Your task to perform on an android device: Toggle the flashlight Image 0: 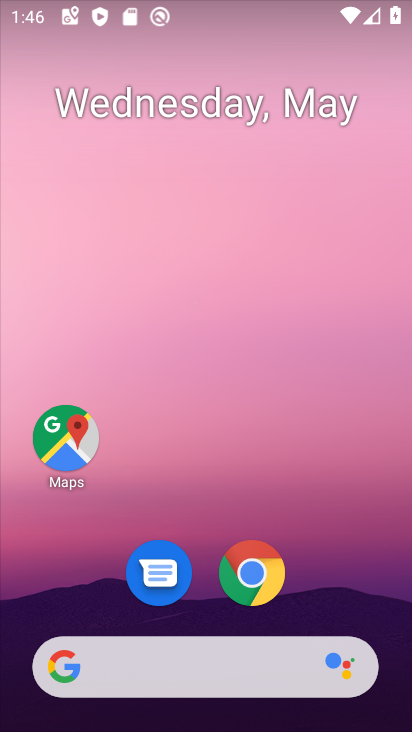
Step 0: drag from (333, 597) to (338, 104)
Your task to perform on an android device: Toggle the flashlight Image 1: 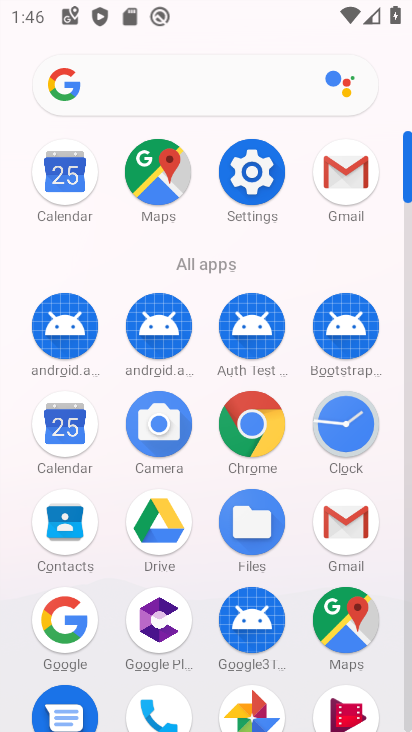
Step 1: click (256, 174)
Your task to perform on an android device: Toggle the flashlight Image 2: 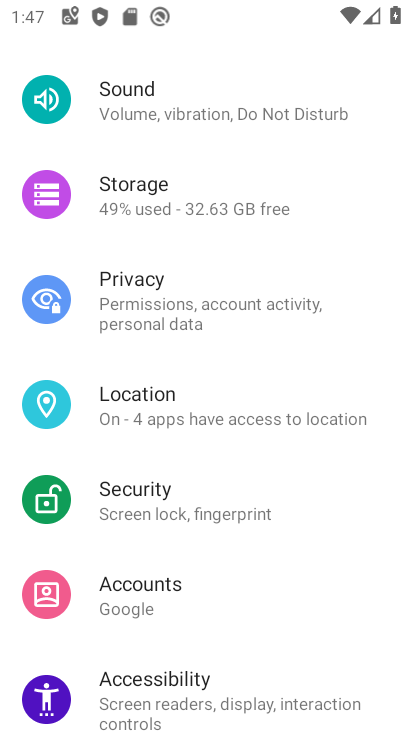
Step 2: task complete